Your task to perform on an android device: turn on the 24-hour format for clock Image 0: 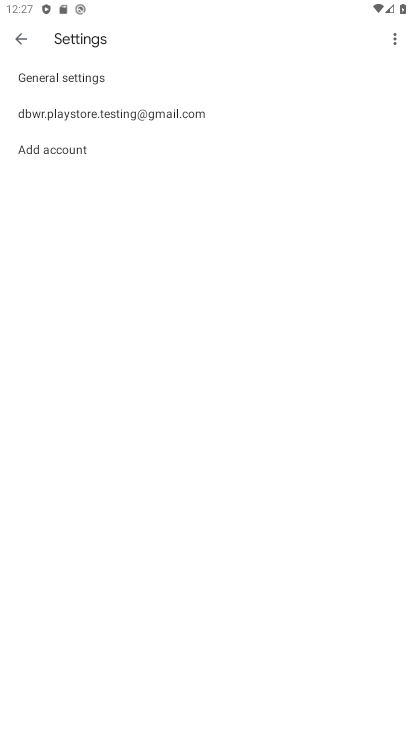
Step 0: press home button
Your task to perform on an android device: turn on the 24-hour format for clock Image 1: 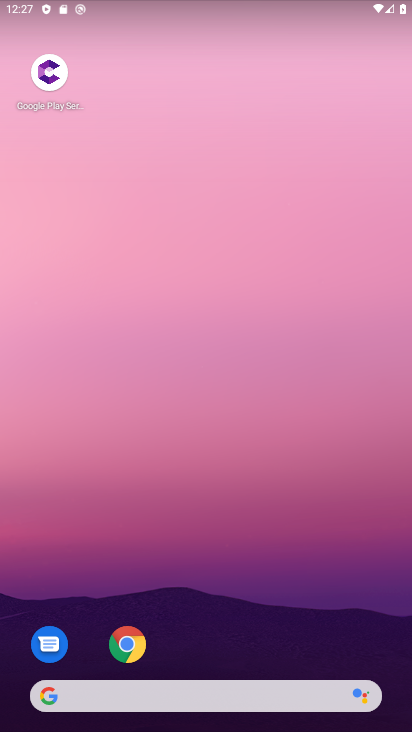
Step 1: drag from (301, 591) to (272, 106)
Your task to perform on an android device: turn on the 24-hour format for clock Image 2: 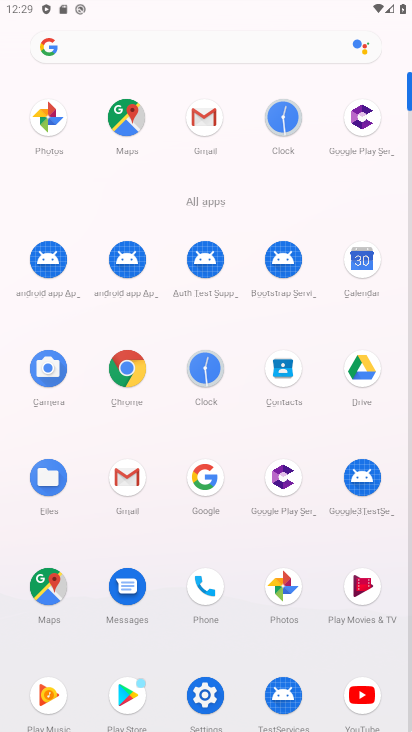
Step 2: click (198, 367)
Your task to perform on an android device: turn on the 24-hour format for clock Image 3: 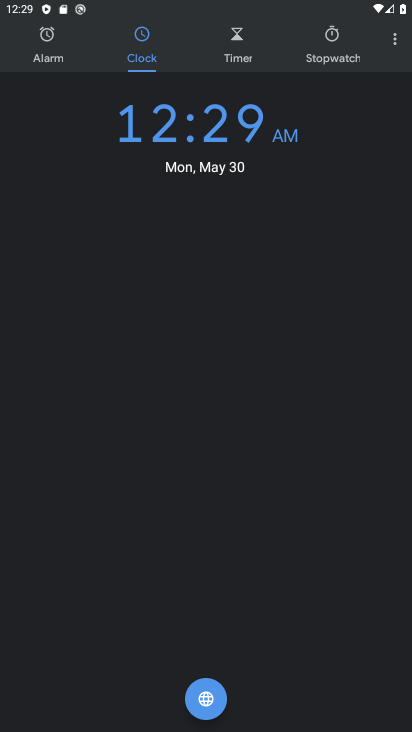
Step 3: click (393, 51)
Your task to perform on an android device: turn on the 24-hour format for clock Image 4: 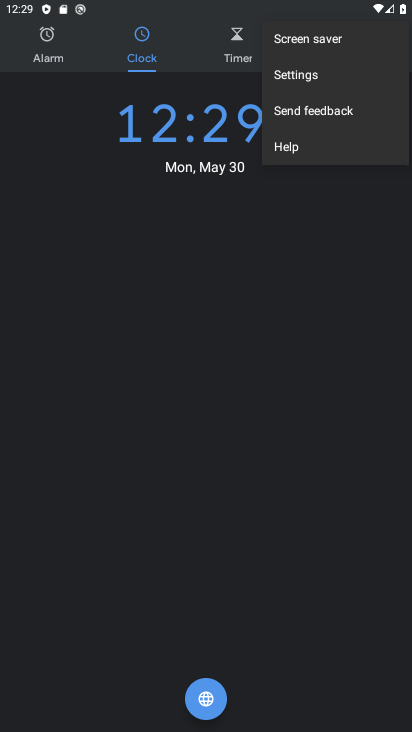
Step 4: click (352, 78)
Your task to perform on an android device: turn on the 24-hour format for clock Image 5: 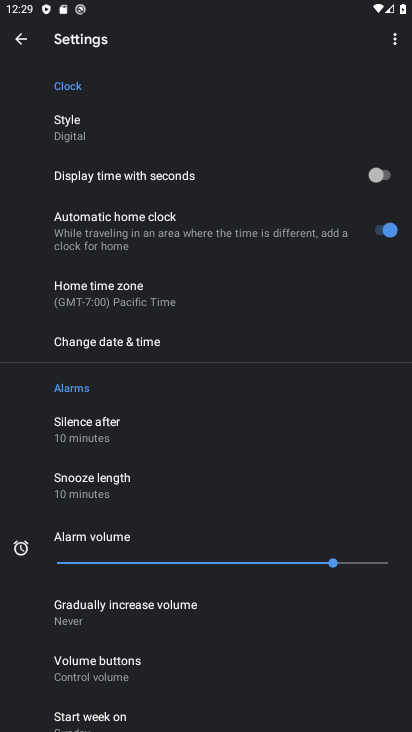
Step 5: task complete